Your task to perform on an android device: turn off javascript in the chrome app Image 0: 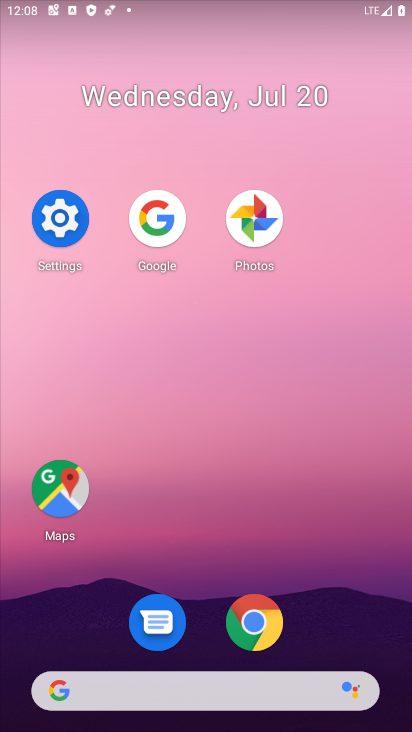
Step 0: click (253, 625)
Your task to perform on an android device: turn off javascript in the chrome app Image 1: 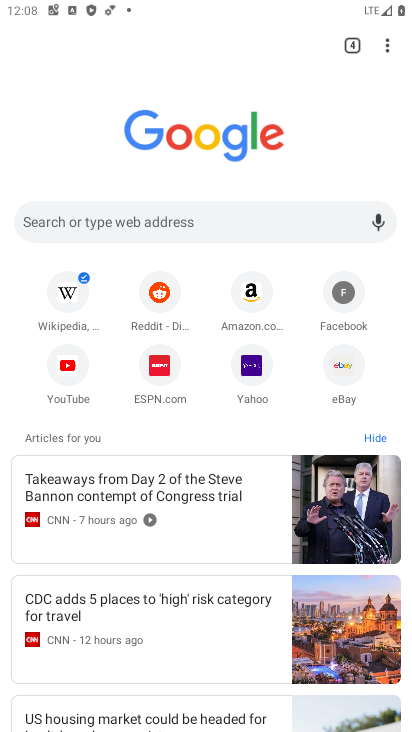
Step 1: click (385, 40)
Your task to perform on an android device: turn off javascript in the chrome app Image 2: 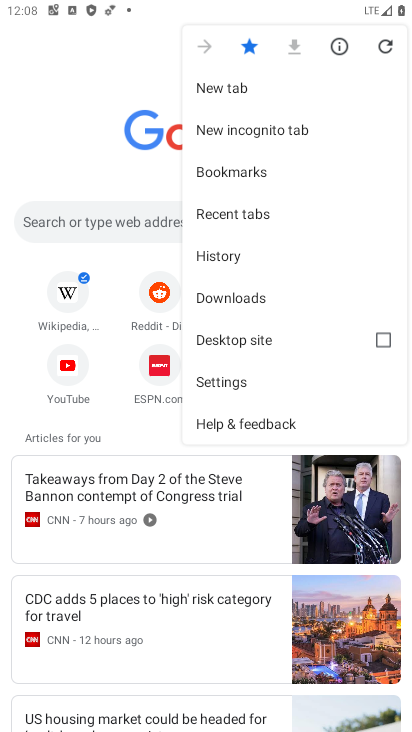
Step 2: click (233, 373)
Your task to perform on an android device: turn off javascript in the chrome app Image 3: 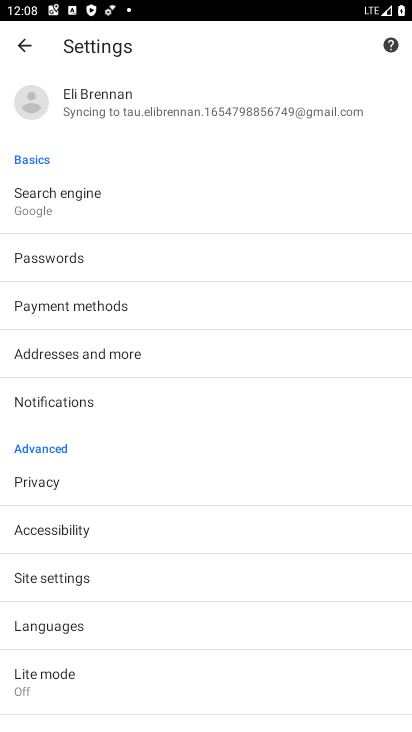
Step 3: drag from (139, 638) to (121, 322)
Your task to perform on an android device: turn off javascript in the chrome app Image 4: 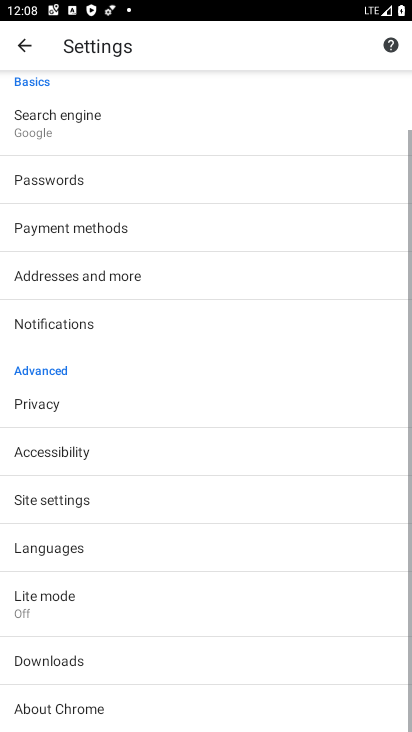
Step 4: click (109, 493)
Your task to perform on an android device: turn off javascript in the chrome app Image 5: 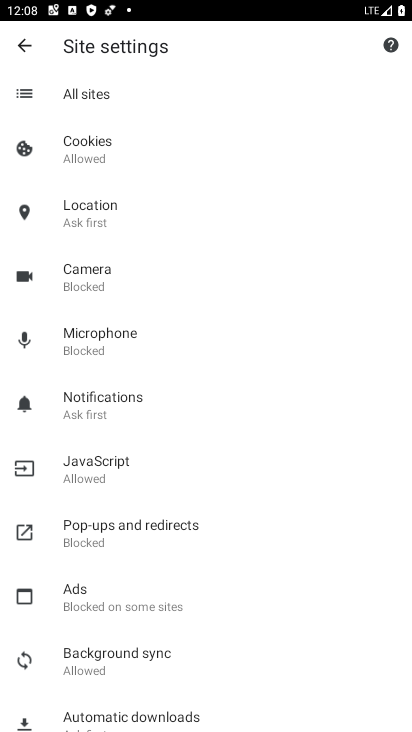
Step 5: click (180, 482)
Your task to perform on an android device: turn off javascript in the chrome app Image 6: 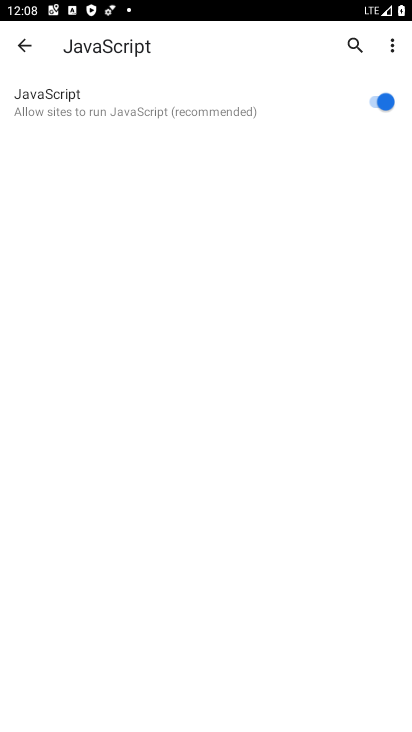
Step 6: click (384, 108)
Your task to perform on an android device: turn off javascript in the chrome app Image 7: 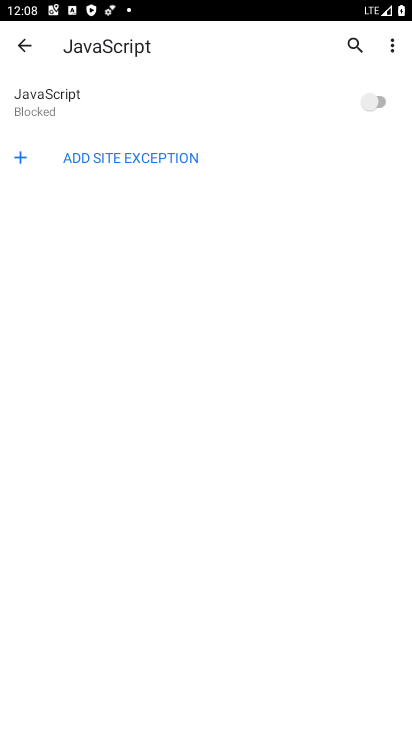
Step 7: task complete